Your task to perform on an android device: turn pop-ups on in chrome Image 0: 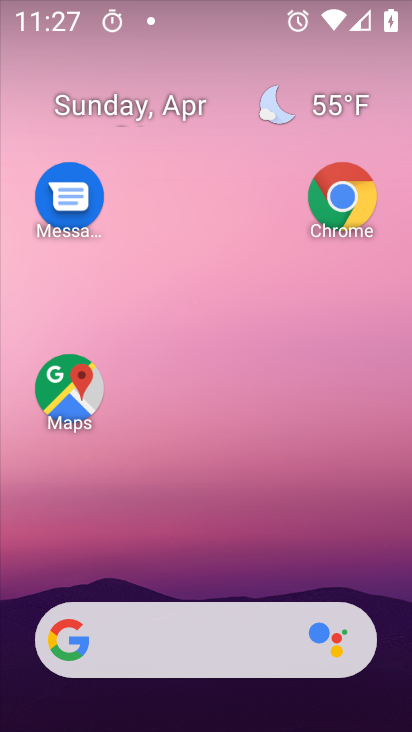
Step 0: drag from (213, 581) to (286, 21)
Your task to perform on an android device: turn pop-ups on in chrome Image 1: 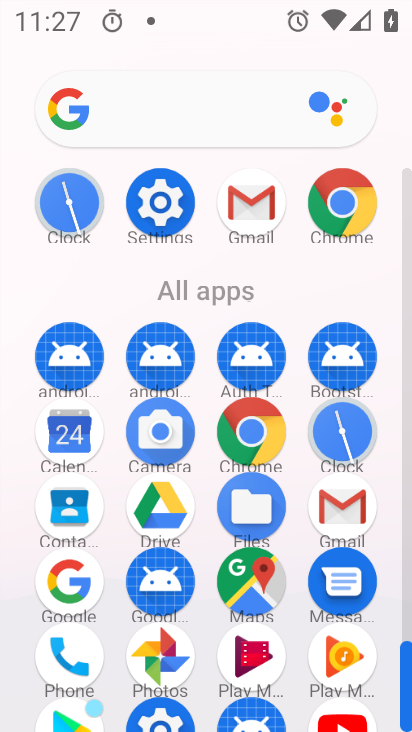
Step 1: click (349, 202)
Your task to perform on an android device: turn pop-ups on in chrome Image 2: 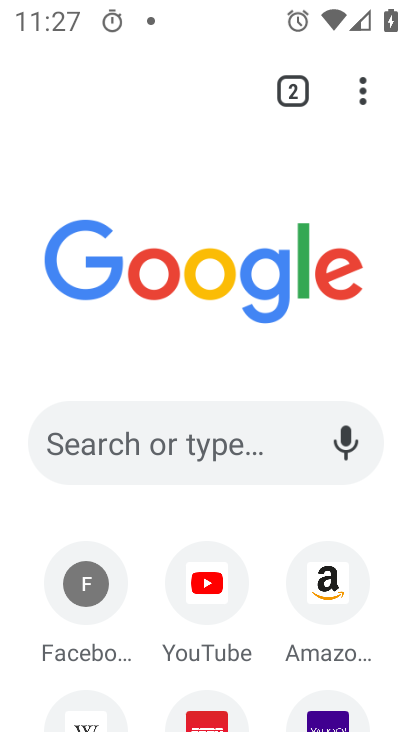
Step 2: drag from (358, 83) to (152, 548)
Your task to perform on an android device: turn pop-ups on in chrome Image 3: 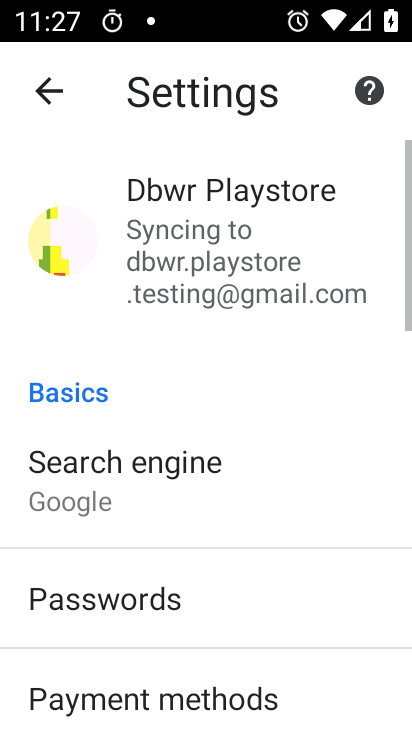
Step 3: drag from (191, 611) to (183, 4)
Your task to perform on an android device: turn pop-ups on in chrome Image 4: 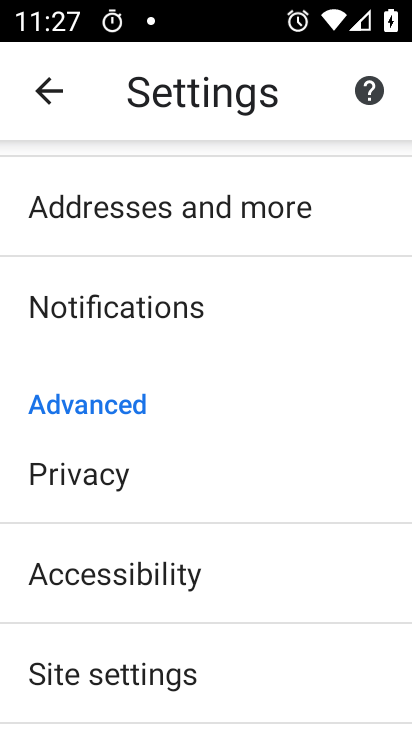
Step 4: click (97, 646)
Your task to perform on an android device: turn pop-ups on in chrome Image 5: 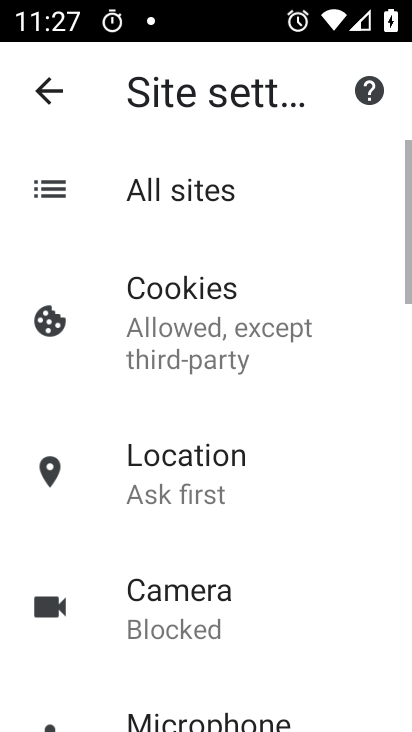
Step 5: drag from (158, 520) to (153, 74)
Your task to perform on an android device: turn pop-ups on in chrome Image 6: 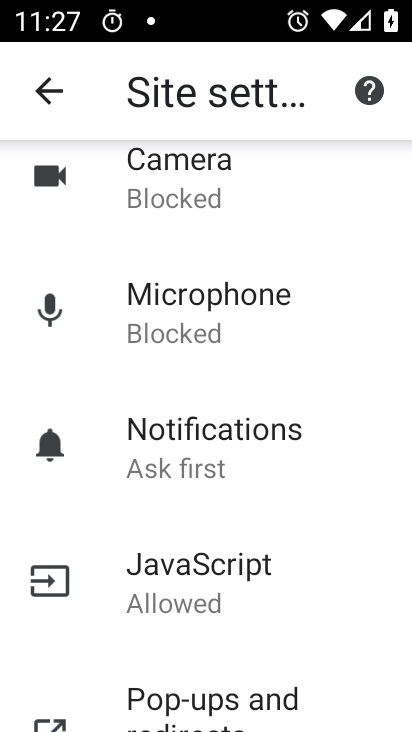
Step 6: click (139, 708)
Your task to perform on an android device: turn pop-ups on in chrome Image 7: 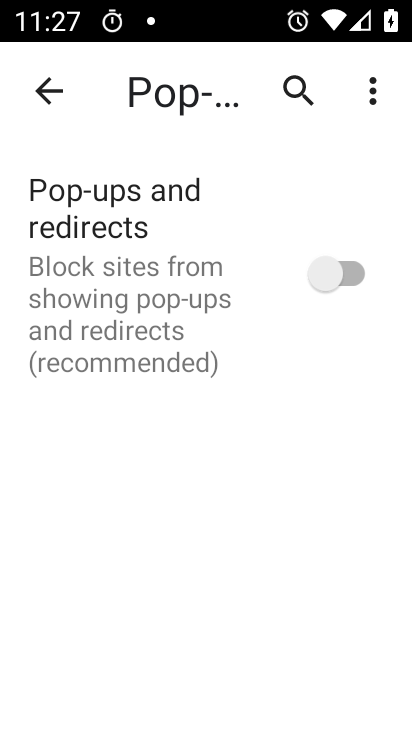
Step 7: click (336, 262)
Your task to perform on an android device: turn pop-ups on in chrome Image 8: 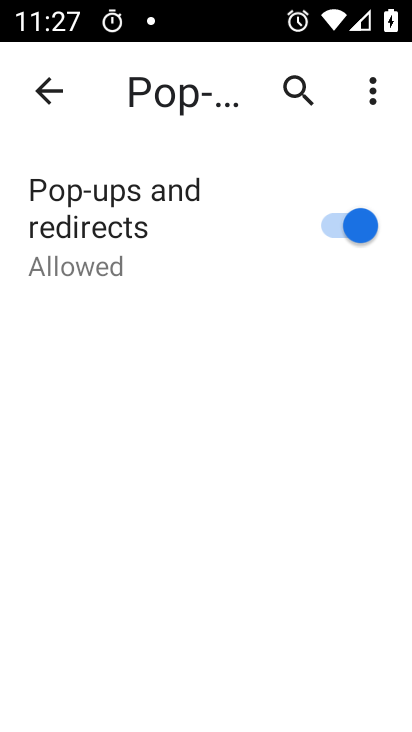
Step 8: task complete